Your task to perform on an android device: open app "Move to iOS" Image 0: 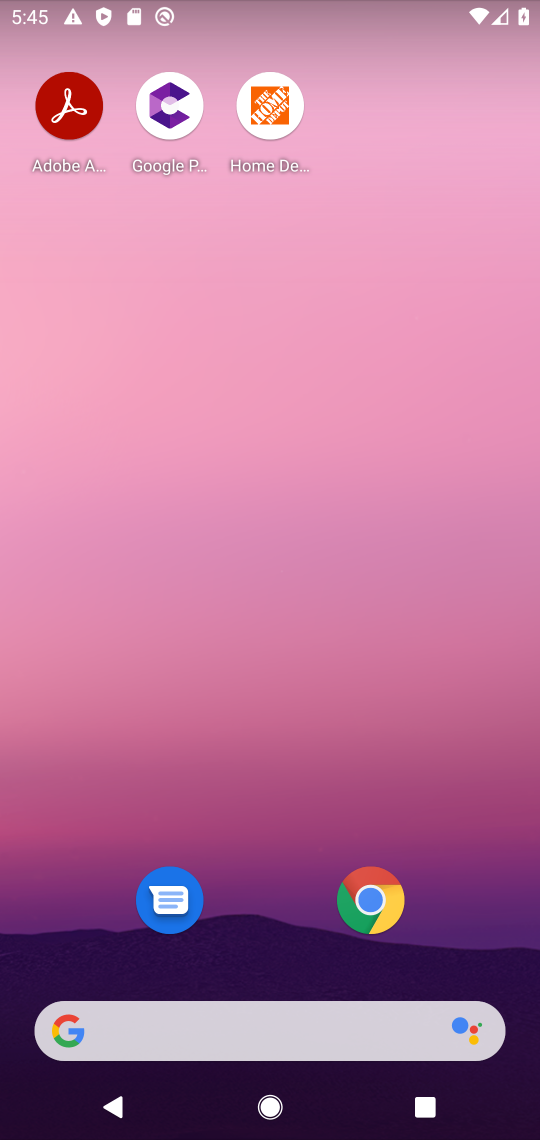
Step 0: drag from (359, 1007) to (441, 161)
Your task to perform on an android device: open app "Move to iOS" Image 1: 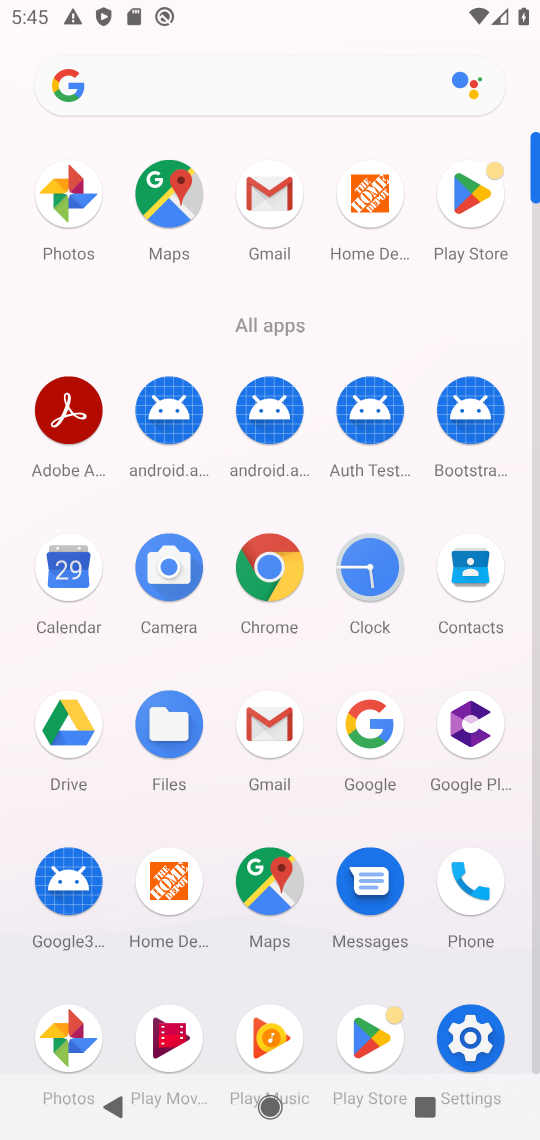
Step 1: click (491, 196)
Your task to perform on an android device: open app "Move to iOS" Image 2: 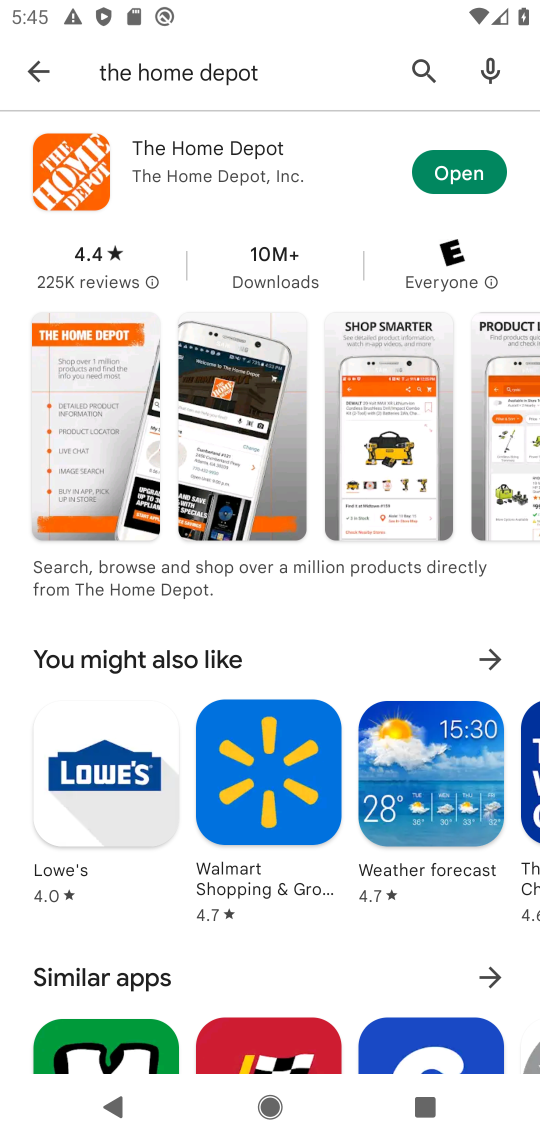
Step 2: click (417, 71)
Your task to perform on an android device: open app "Move to iOS" Image 3: 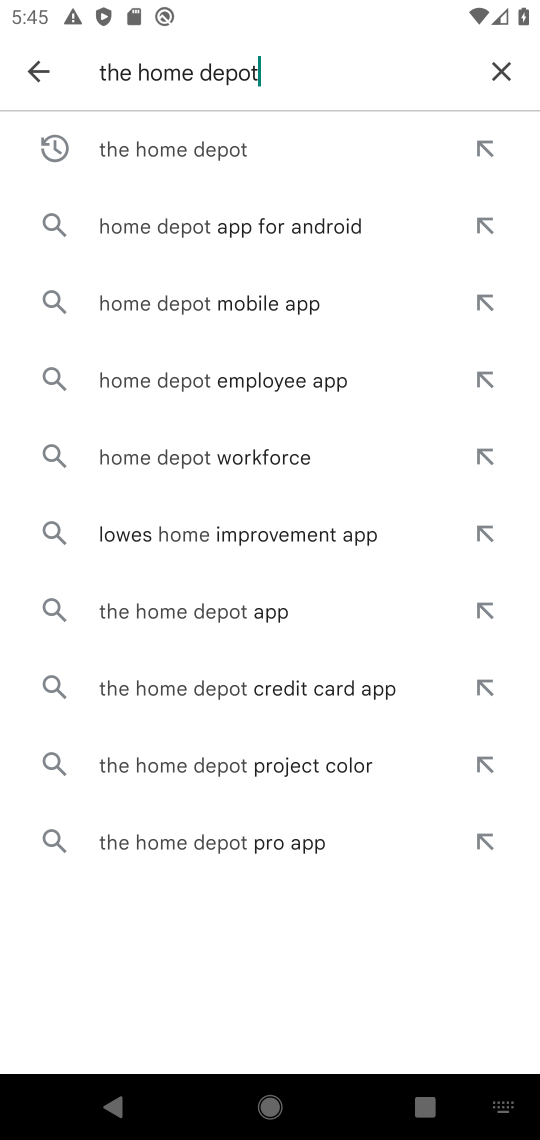
Step 3: click (504, 74)
Your task to perform on an android device: open app "Move to iOS" Image 4: 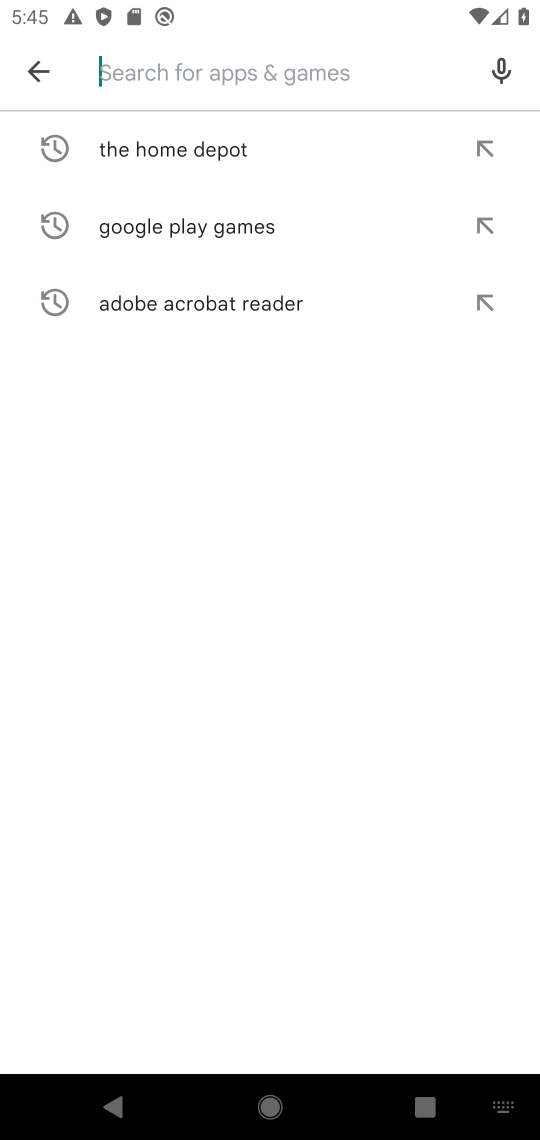
Step 4: type "move to ios"
Your task to perform on an android device: open app "Move to iOS" Image 5: 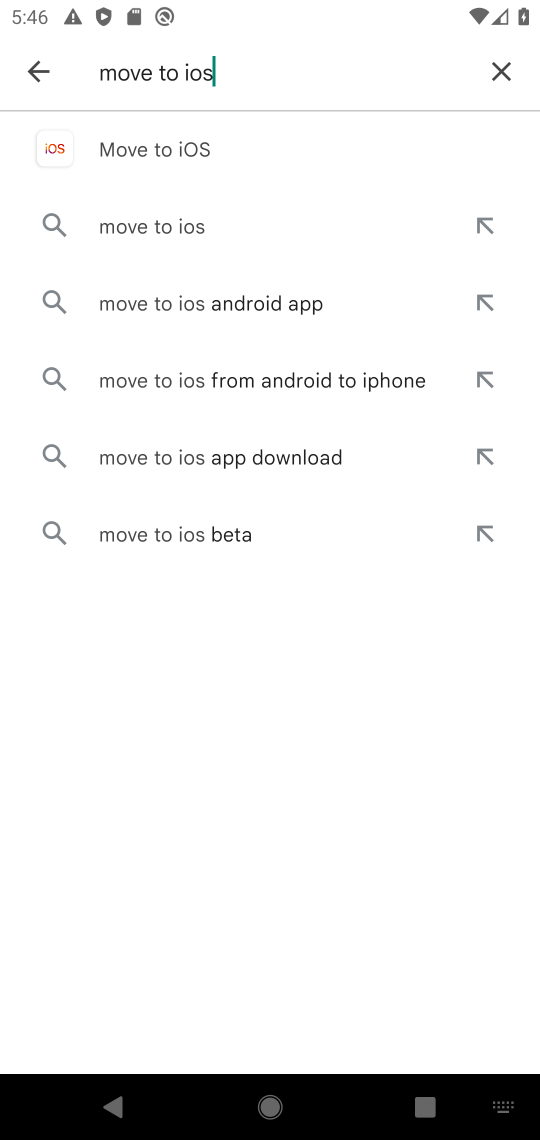
Step 5: click (152, 139)
Your task to perform on an android device: open app "Move to iOS" Image 6: 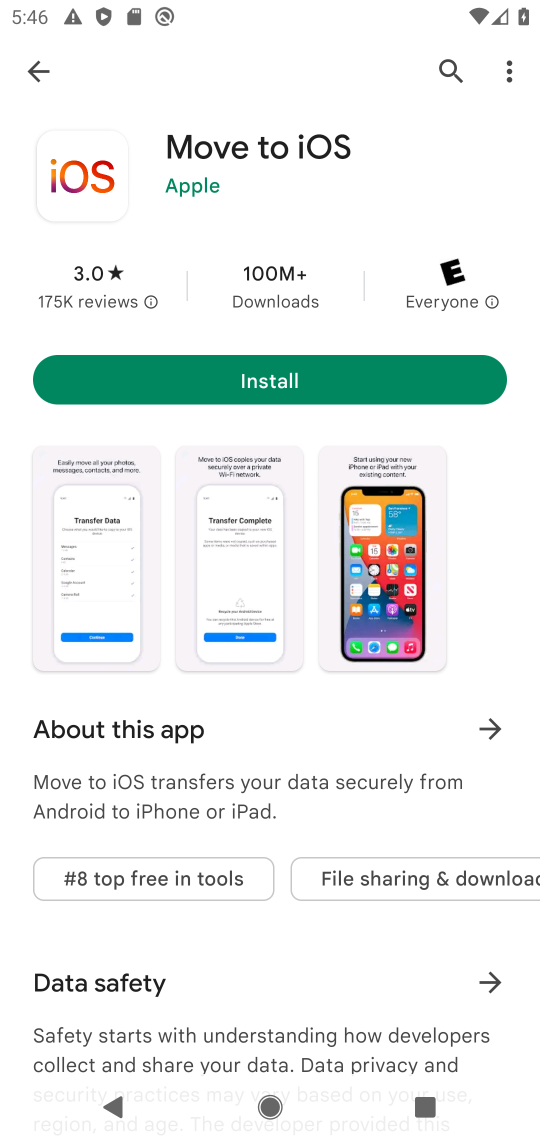
Step 6: task complete